Your task to perform on an android device: add a label to a message in the gmail app Image 0: 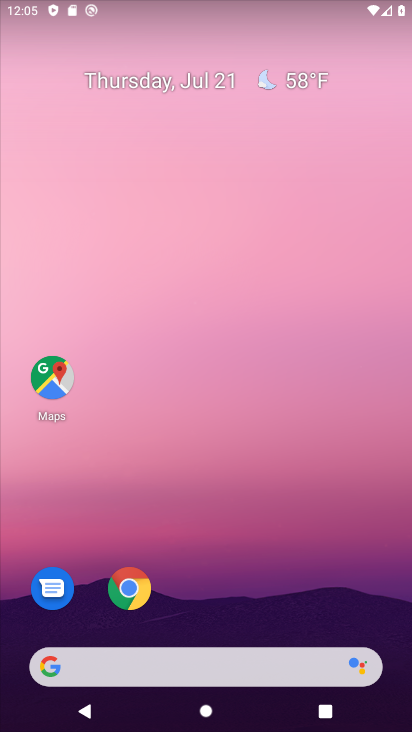
Step 0: drag from (273, 578) to (185, 83)
Your task to perform on an android device: add a label to a message in the gmail app Image 1: 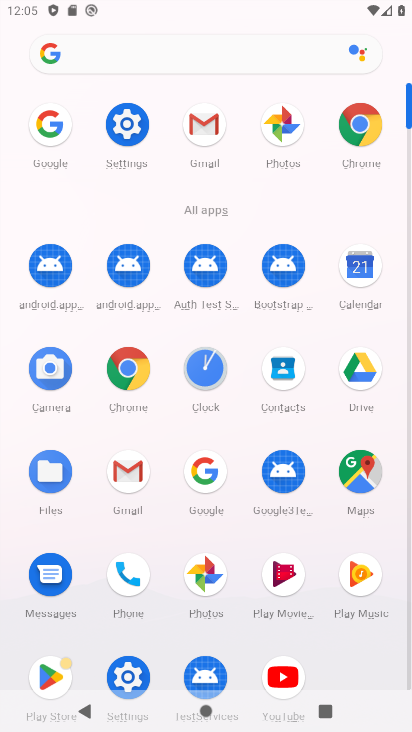
Step 1: click (194, 122)
Your task to perform on an android device: add a label to a message in the gmail app Image 2: 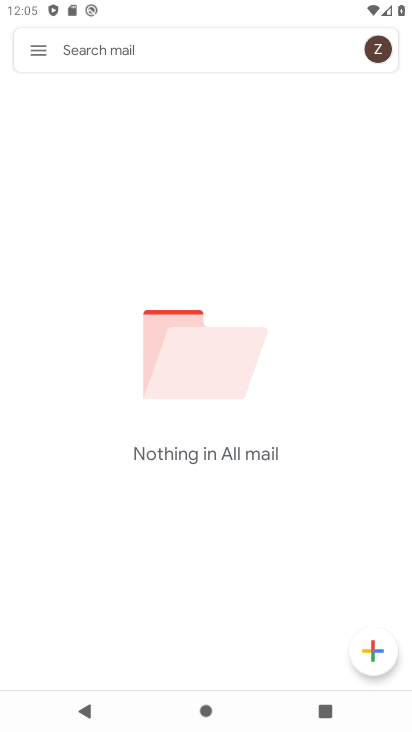
Step 2: task complete